Your task to perform on an android device: What's the weather? Image 0: 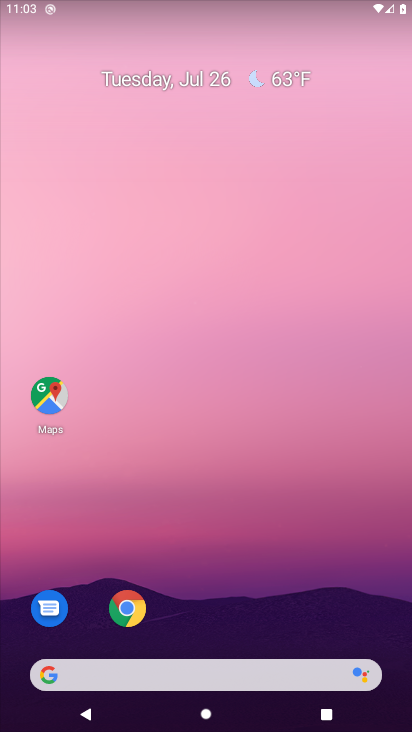
Step 0: press home button
Your task to perform on an android device: What's the weather? Image 1: 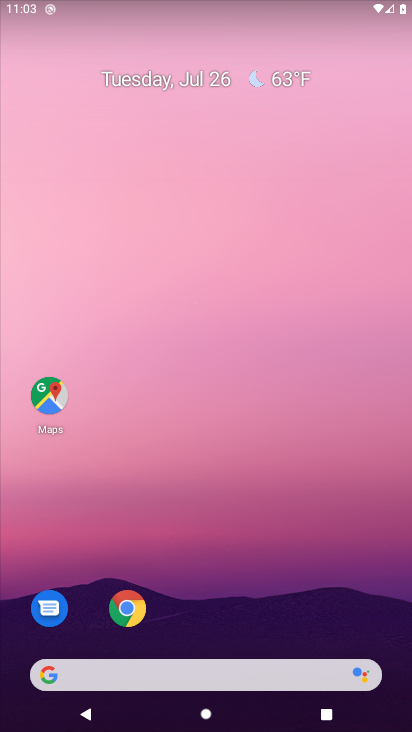
Step 1: click (52, 669)
Your task to perform on an android device: What's the weather? Image 2: 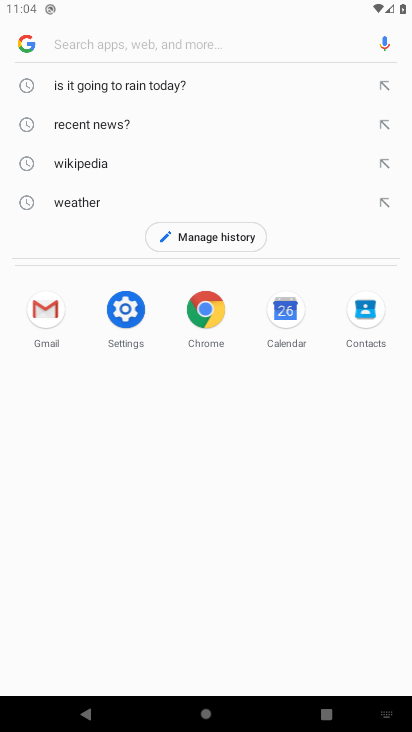
Step 2: type "What's the weather?"
Your task to perform on an android device: What's the weather? Image 3: 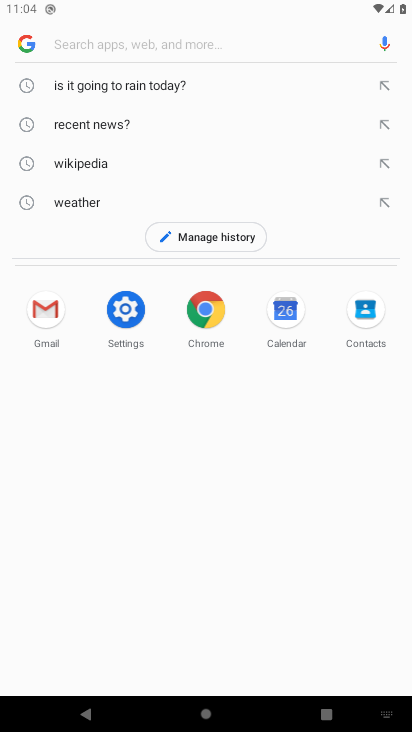
Step 3: click (82, 45)
Your task to perform on an android device: What's the weather? Image 4: 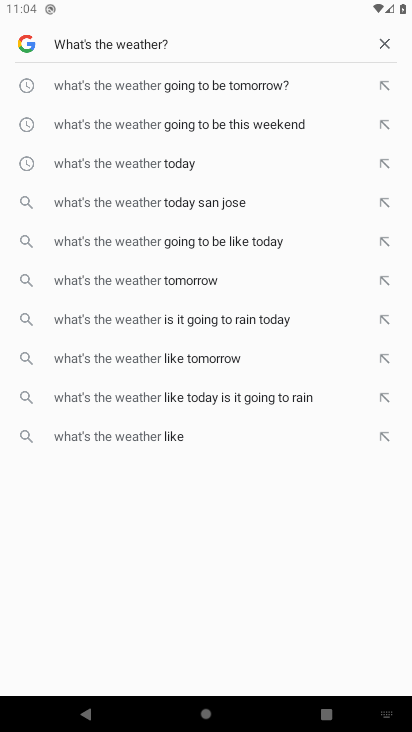
Step 4: press enter
Your task to perform on an android device: What's the weather? Image 5: 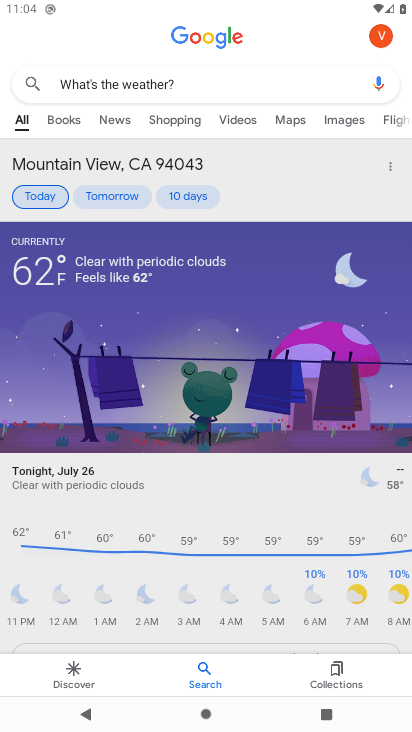
Step 5: task complete